Your task to perform on an android device: Show me productivity apps on the Play Store Image 0: 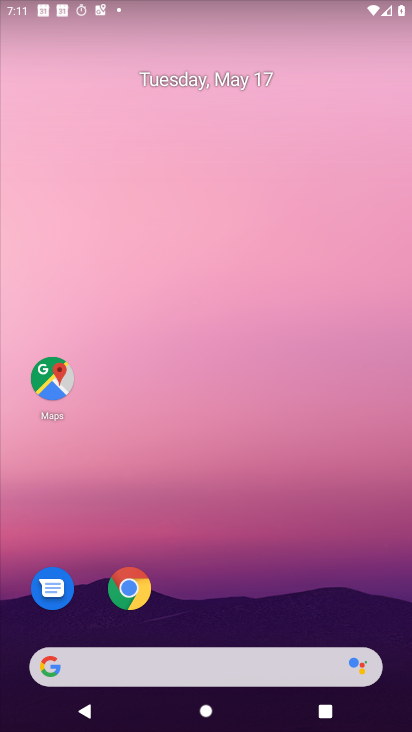
Step 0: drag from (266, 459) to (247, 164)
Your task to perform on an android device: Show me productivity apps on the Play Store Image 1: 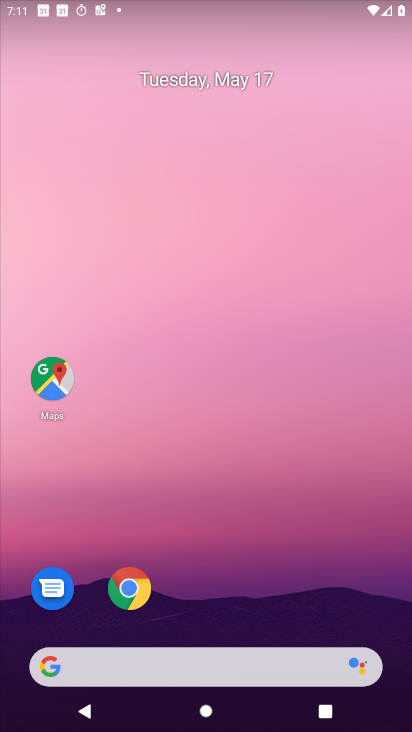
Step 1: drag from (228, 563) to (173, 3)
Your task to perform on an android device: Show me productivity apps on the Play Store Image 2: 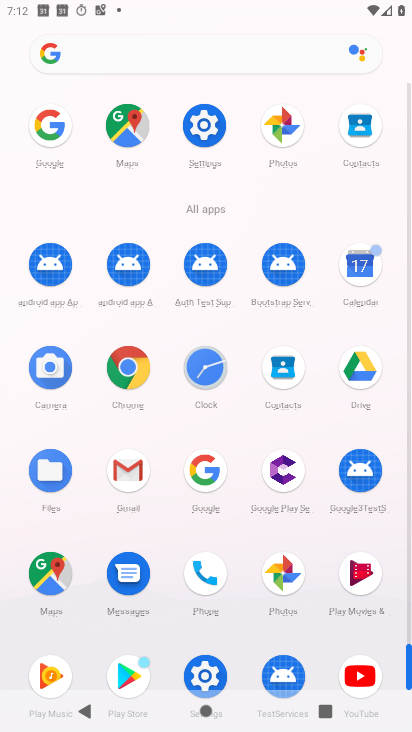
Step 2: drag from (163, 440) to (169, 282)
Your task to perform on an android device: Show me productivity apps on the Play Store Image 3: 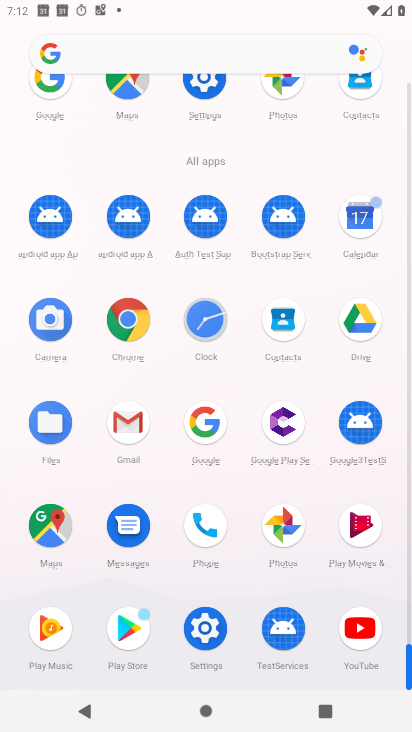
Step 3: click (125, 627)
Your task to perform on an android device: Show me productivity apps on the Play Store Image 4: 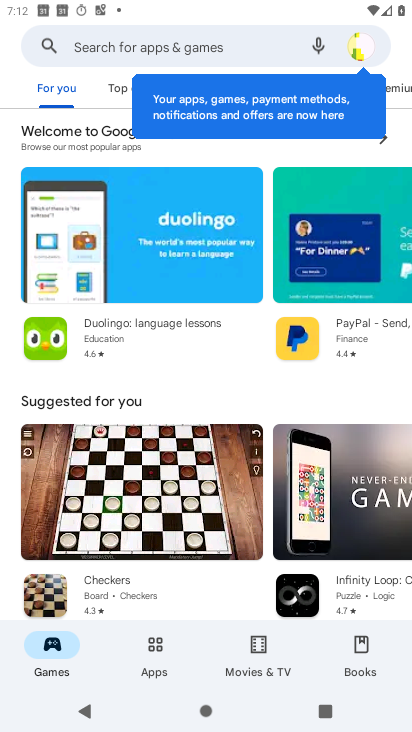
Step 4: click (158, 649)
Your task to perform on an android device: Show me productivity apps on the Play Store Image 5: 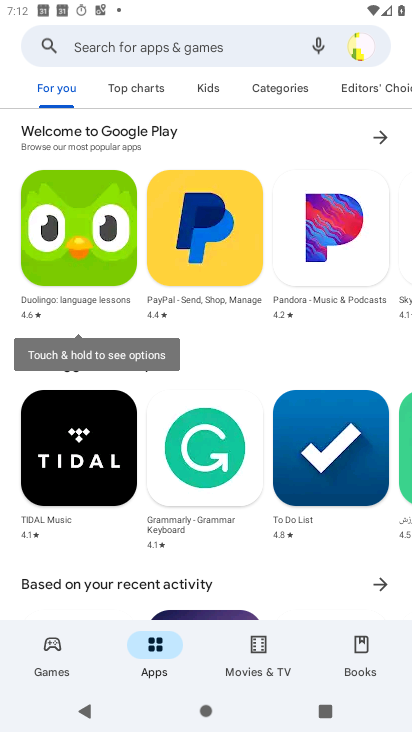
Step 5: click (272, 90)
Your task to perform on an android device: Show me productivity apps on the Play Store Image 6: 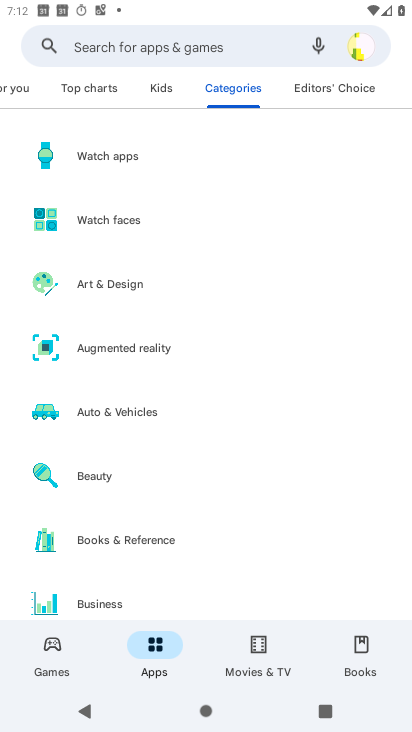
Step 6: drag from (137, 321) to (129, 199)
Your task to perform on an android device: Show me productivity apps on the Play Store Image 7: 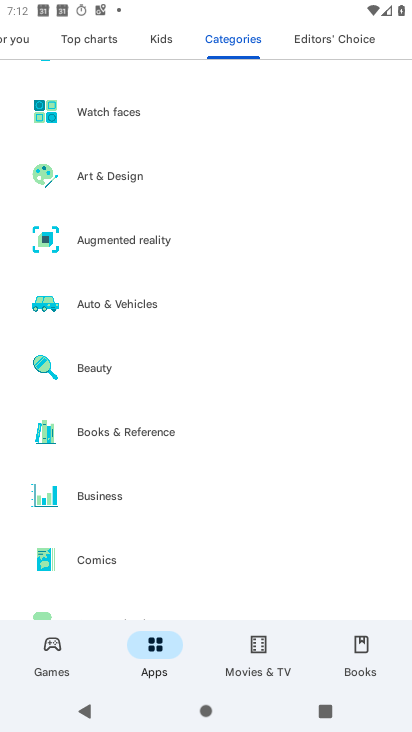
Step 7: drag from (136, 328) to (171, 240)
Your task to perform on an android device: Show me productivity apps on the Play Store Image 8: 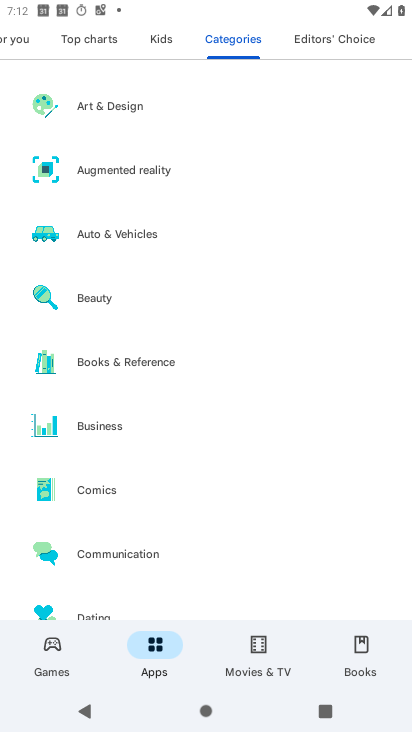
Step 8: drag from (139, 409) to (163, 311)
Your task to perform on an android device: Show me productivity apps on the Play Store Image 9: 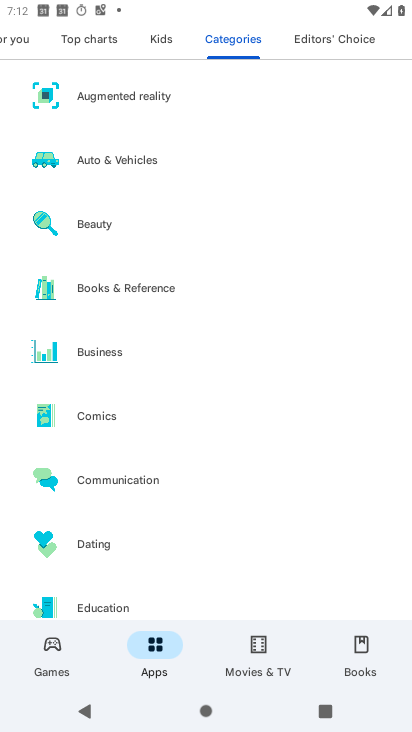
Step 9: drag from (97, 436) to (152, 347)
Your task to perform on an android device: Show me productivity apps on the Play Store Image 10: 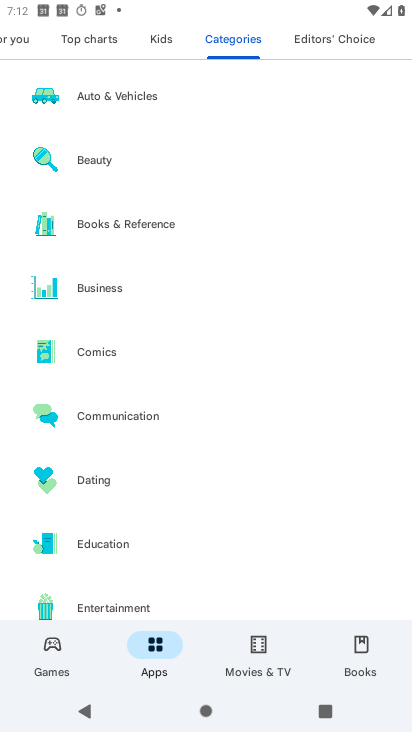
Step 10: drag from (100, 445) to (115, 364)
Your task to perform on an android device: Show me productivity apps on the Play Store Image 11: 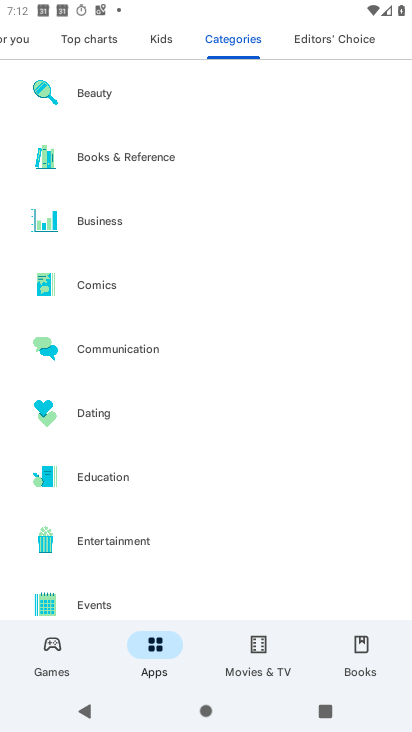
Step 11: drag from (101, 452) to (152, 346)
Your task to perform on an android device: Show me productivity apps on the Play Store Image 12: 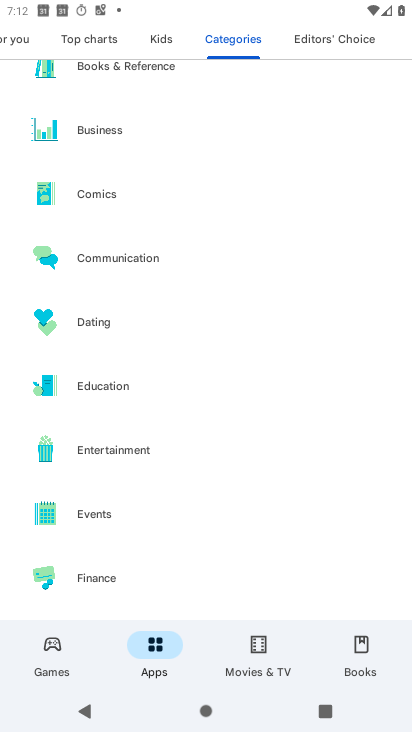
Step 12: drag from (92, 425) to (156, 328)
Your task to perform on an android device: Show me productivity apps on the Play Store Image 13: 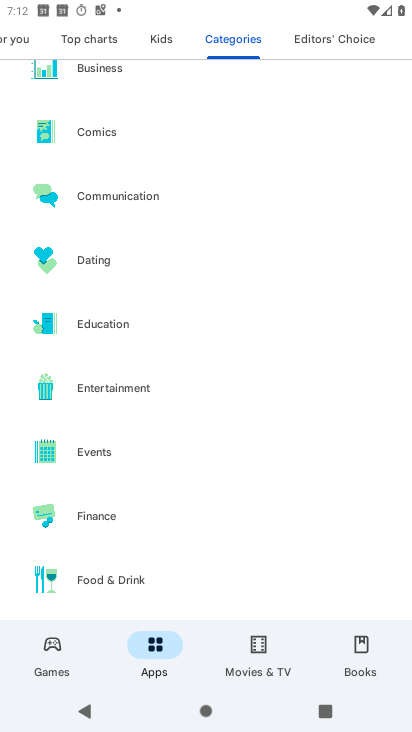
Step 13: drag from (92, 434) to (167, 321)
Your task to perform on an android device: Show me productivity apps on the Play Store Image 14: 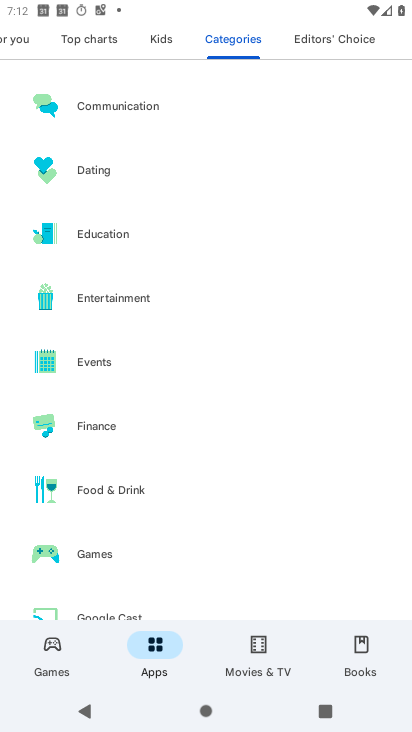
Step 14: drag from (81, 457) to (157, 360)
Your task to perform on an android device: Show me productivity apps on the Play Store Image 15: 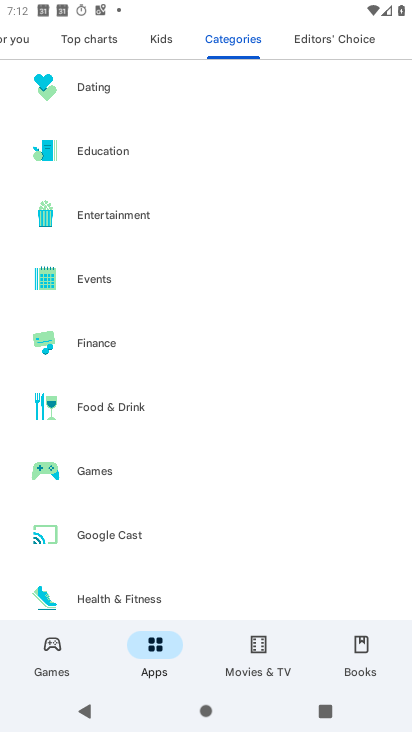
Step 15: drag from (111, 510) to (171, 416)
Your task to perform on an android device: Show me productivity apps on the Play Store Image 16: 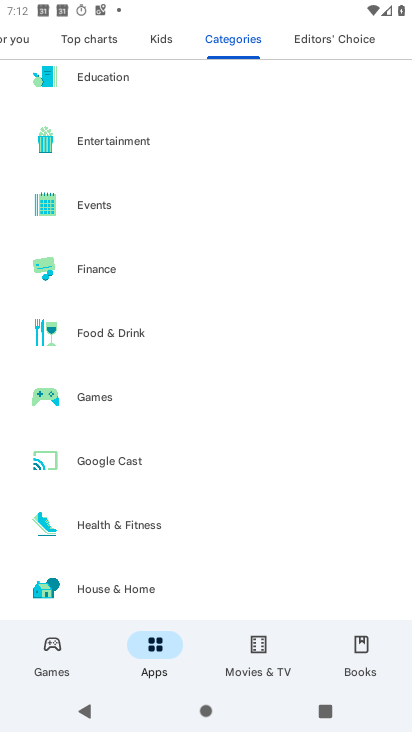
Step 16: drag from (106, 498) to (187, 389)
Your task to perform on an android device: Show me productivity apps on the Play Store Image 17: 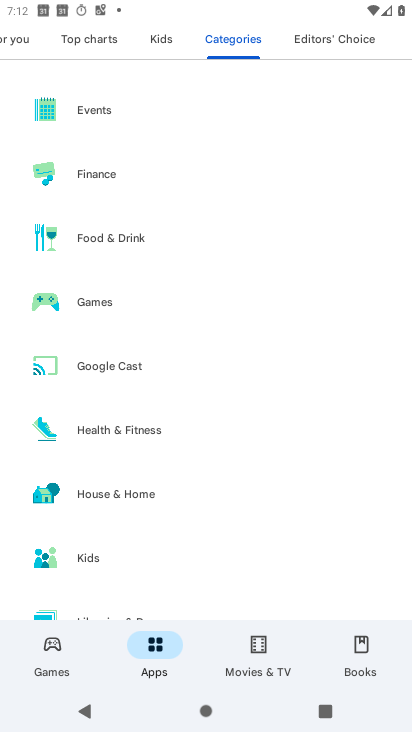
Step 17: drag from (106, 519) to (155, 430)
Your task to perform on an android device: Show me productivity apps on the Play Store Image 18: 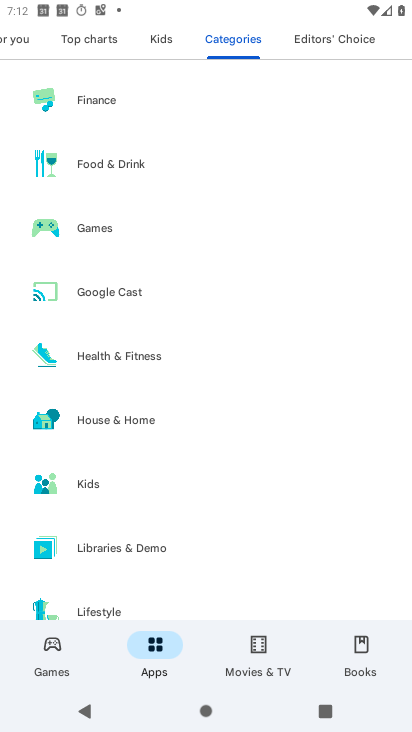
Step 18: drag from (83, 509) to (189, 392)
Your task to perform on an android device: Show me productivity apps on the Play Store Image 19: 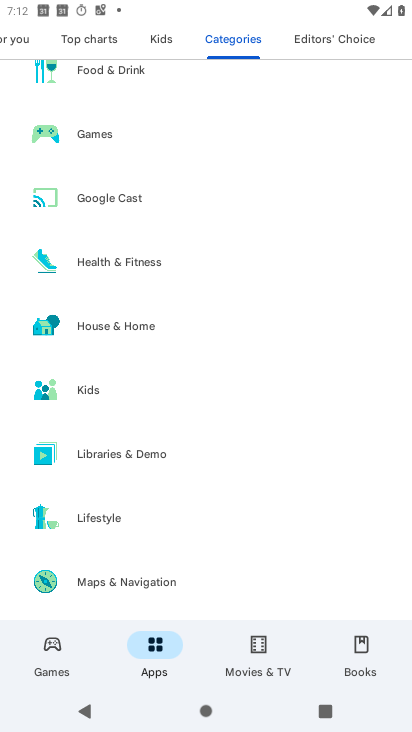
Step 19: drag from (100, 493) to (162, 406)
Your task to perform on an android device: Show me productivity apps on the Play Store Image 20: 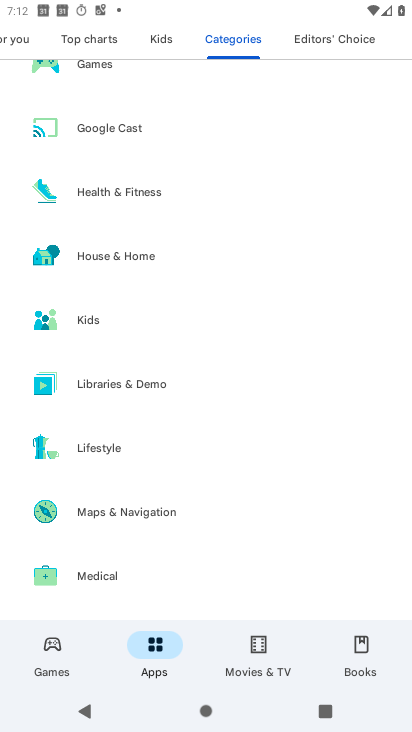
Step 20: drag from (109, 494) to (193, 404)
Your task to perform on an android device: Show me productivity apps on the Play Store Image 21: 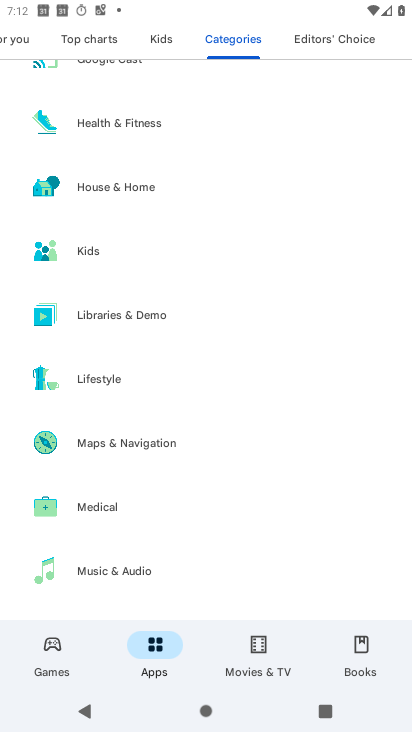
Step 21: drag from (123, 479) to (198, 383)
Your task to perform on an android device: Show me productivity apps on the Play Store Image 22: 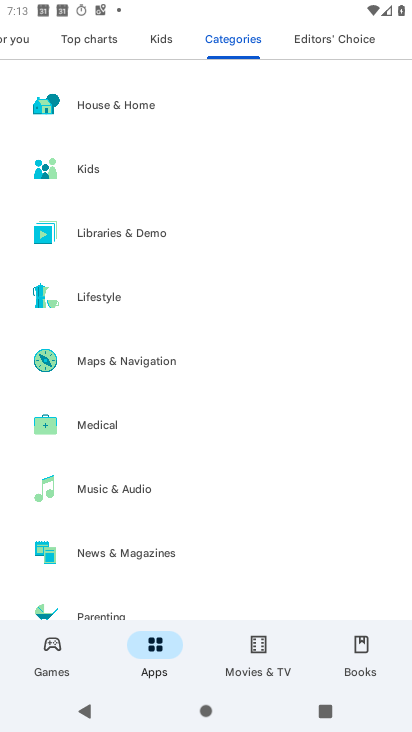
Step 22: drag from (106, 468) to (192, 366)
Your task to perform on an android device: Show me productivity apps on the Play Store Image 23: 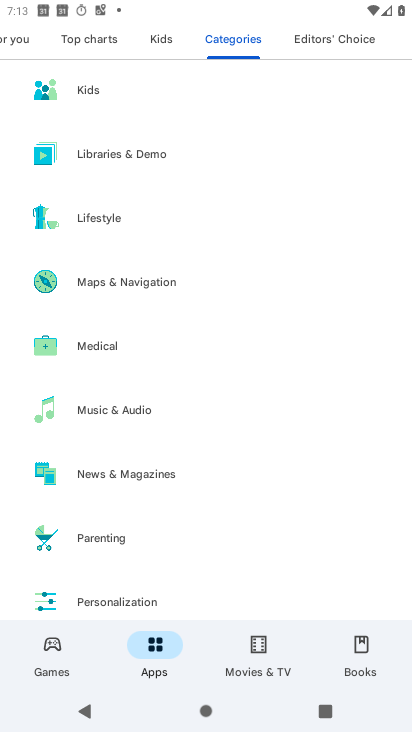
Step 23: drag from (101, 490) to (196, 377)
Your task to perform on an android device: Show me productivity apps on the Play Store Image 24: 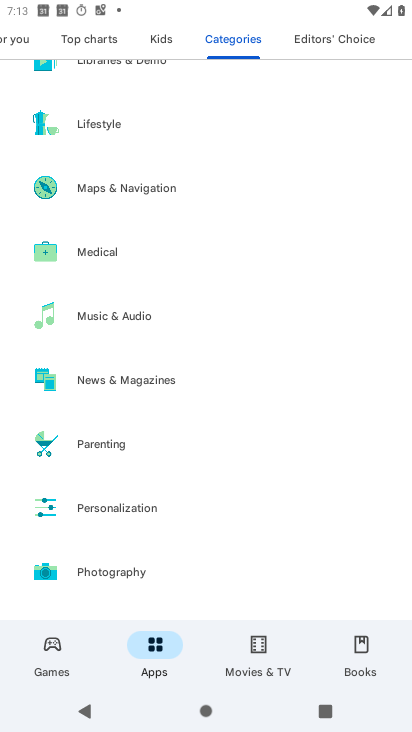
Step 24: drag from (96, 495) to (194, 377)
Your task to perform on an android device: Show me productivity apps on the Play Store Image 25: 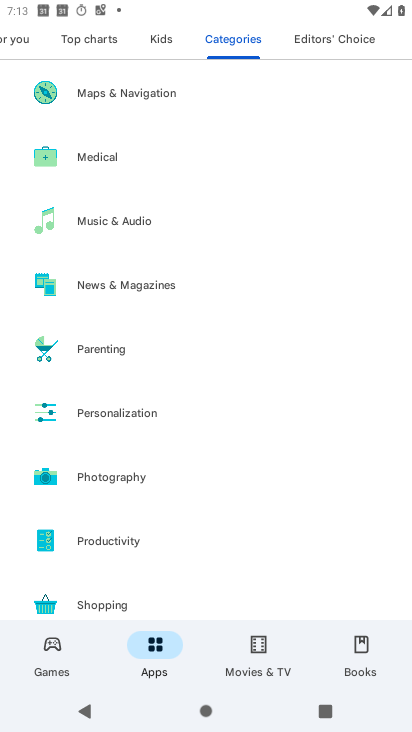
Step 25: drag from (99, 508) to (181, 389)
Your task to perform on an android device: Show me productivity apps on the Play Store Image 26: 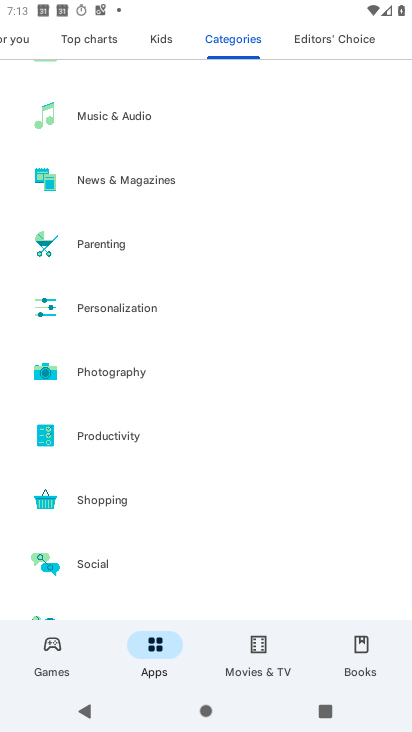
Step 26: click (116, 439)
Your task to perform on an android device: Show me productivity apps on the Play Store Image 27: 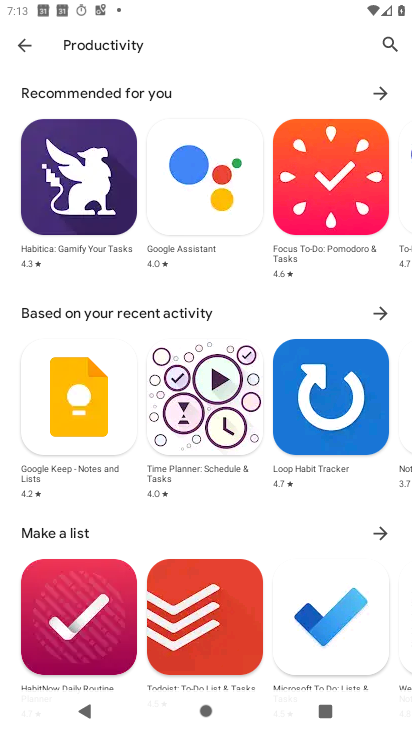
Step 27: task complete